Your task to perform on an android device: Open display settings Image 0: 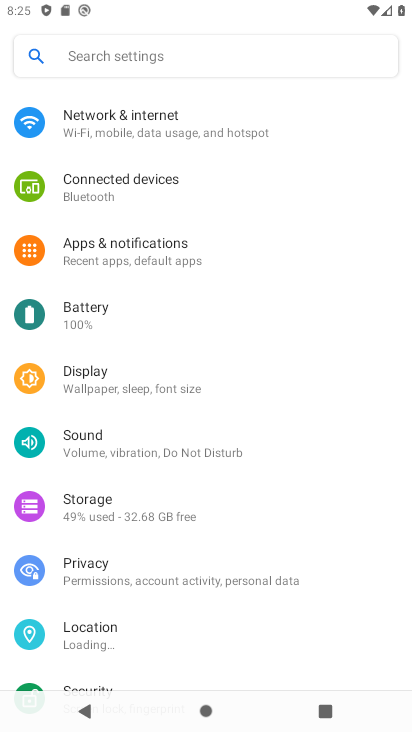
Step 0: press back button
Your task to perform on an android device: Open display settings Image 1: 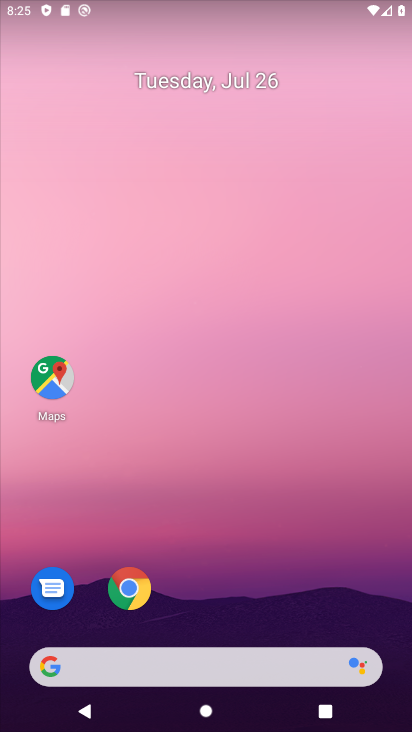
Step 1: drag from (200, 627) to (137, 112)
Your task to perform on an android device: Open display settings Image 2: 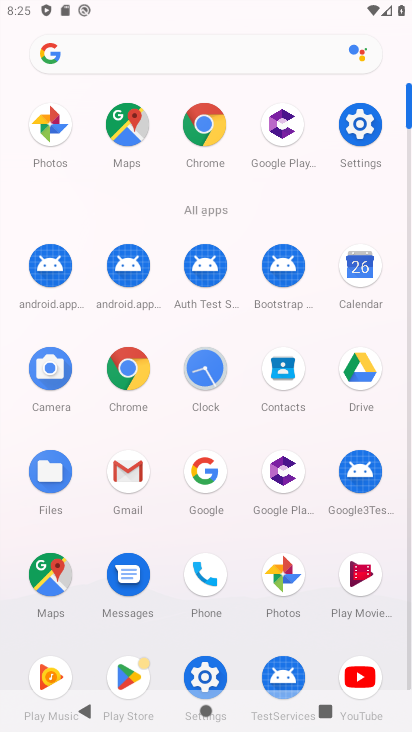
Step 2: click (361, 119)
Your task to perform on an android device: Open display settings Image 3: 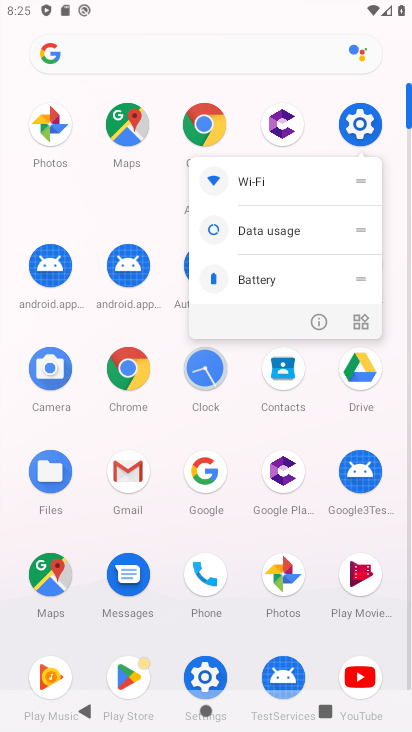
Step 3: click (357, 117)
Your task to perform on an android device: Open display settings Image 4: 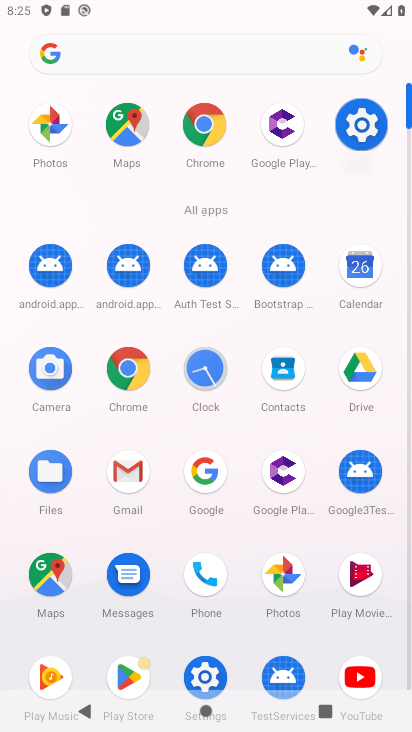
Step 4: click (359, 124)
Your task to perform on an android device: Open display settings Image 5: 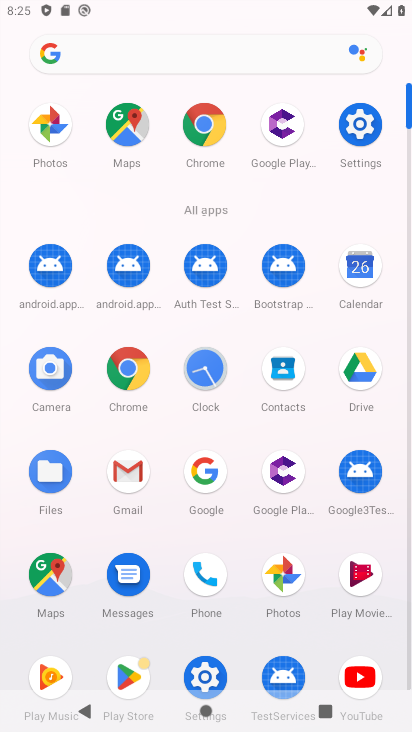
Step 5: click (359, 125)
Your task to perform on an android device: Open display settings Image 6: 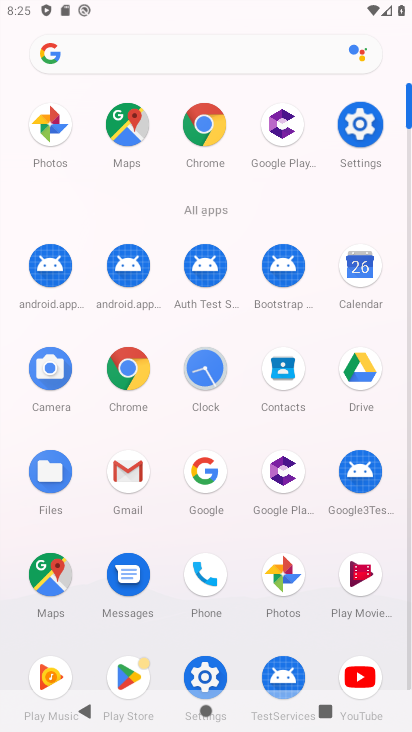
Step 6: click (359, 125)
Your task to perform on an android device: Open display settings Image 7: 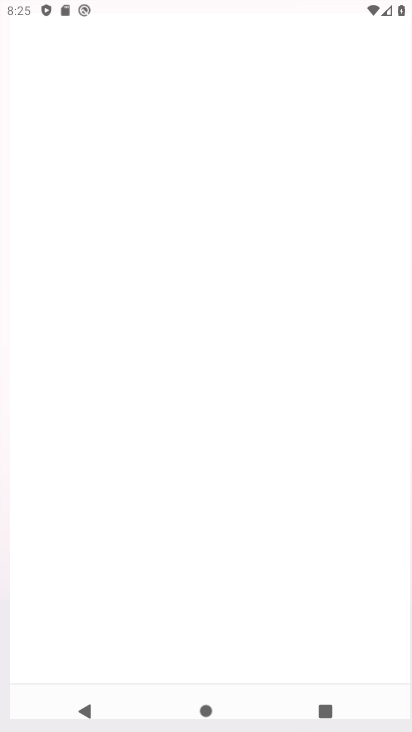
Step 7: click (360, 124)
Your task to perform on an android device: Open display settings Image 8: 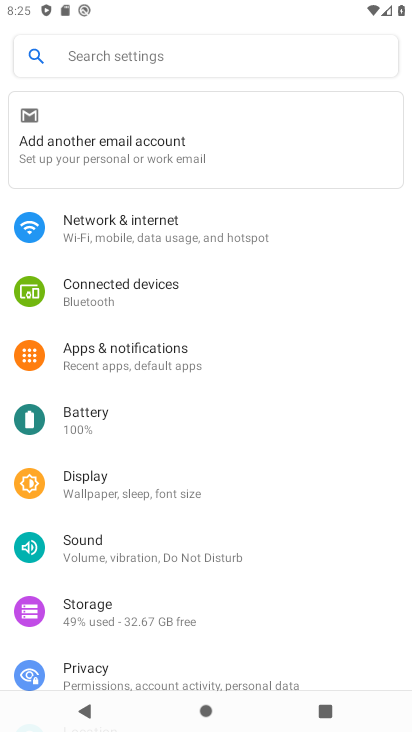
Step 8: click (92, 486)
Your task to perform on an android device: Open display settings Image 9: 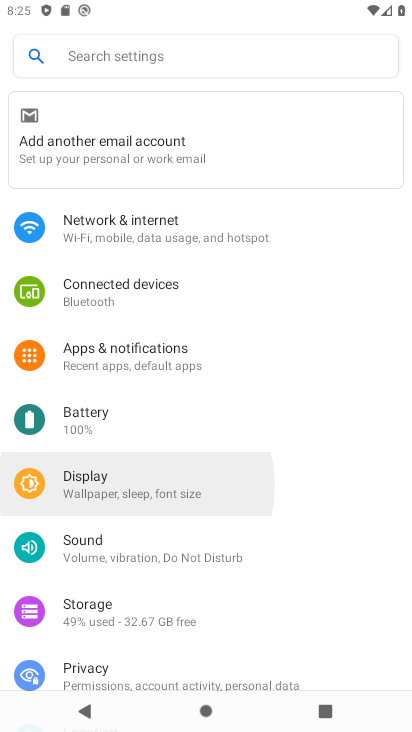
Step 9: click (93, 485)
Your task to perform on an android device: Open display settings Image 10: 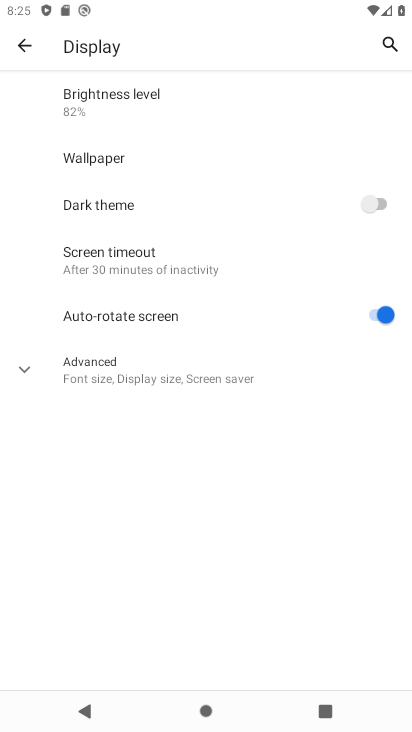
Step 10: task complete